Your task to perform on an android device: Go to network settings Image 0: 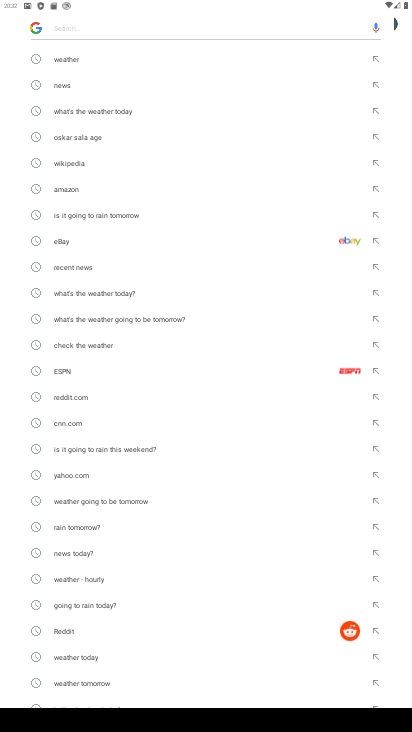
Step 0: press home button
Your task to perform on an android device: Go to network settings Image 1: 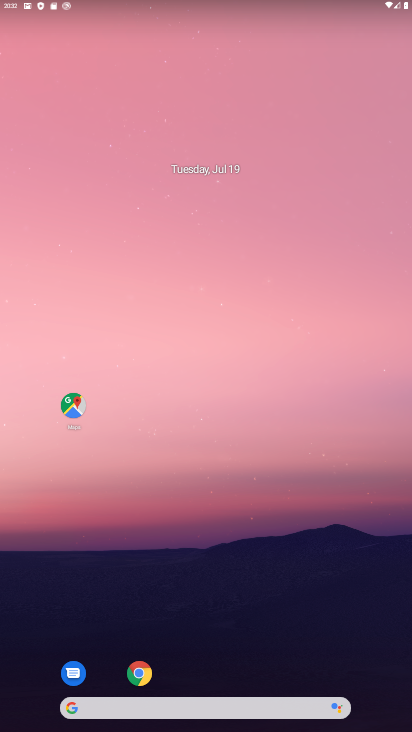
Step 1: drag from (230, 606) to (238, 146)
Your task to perform on an android device: Go to network settings Image 2: 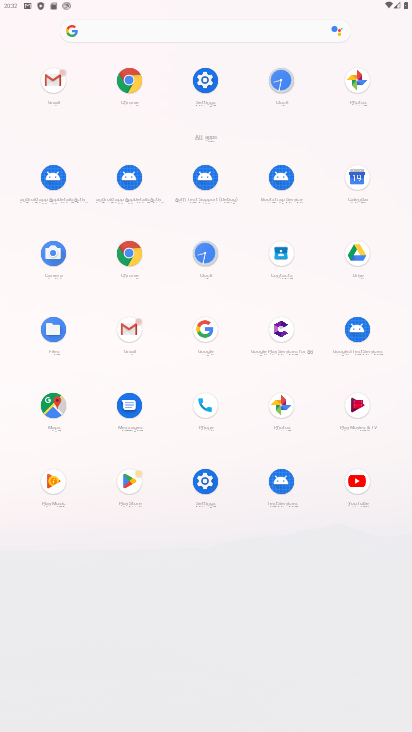
Step 2: click (209, 500)
Your task to perform on an android device: Go to network settings Image 3: 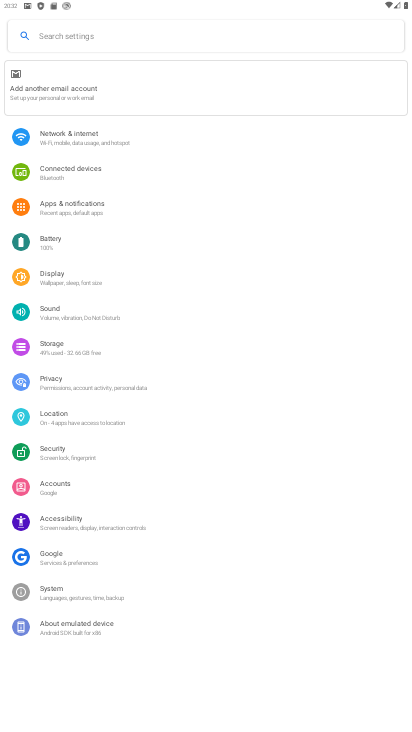
Step 3: click (113, 140)
Your task to perform on an android device: Go to network settings Image 4: 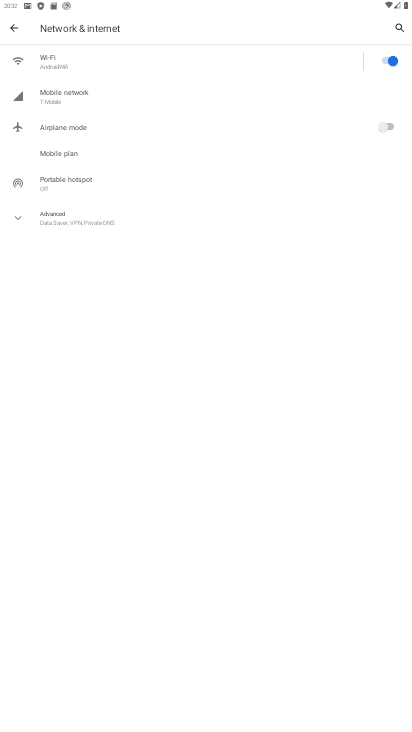
Step 4: task complete